Your task to perform on an android device: Go to Google Image 0: 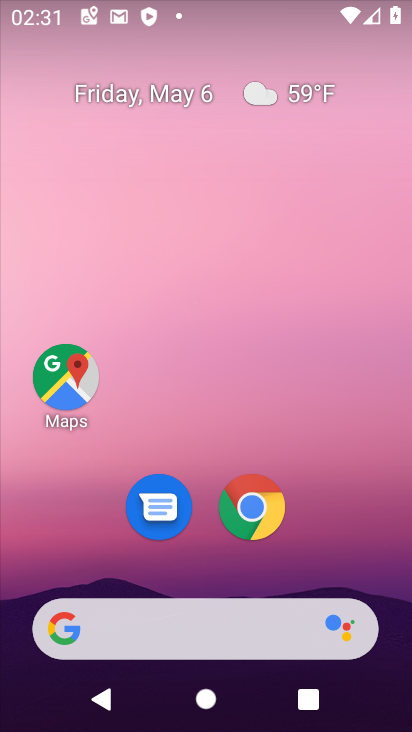
Step 0: drag from (309, 554) to (320, 15)
Your task to perform on an android device: Go to Google Image 1: 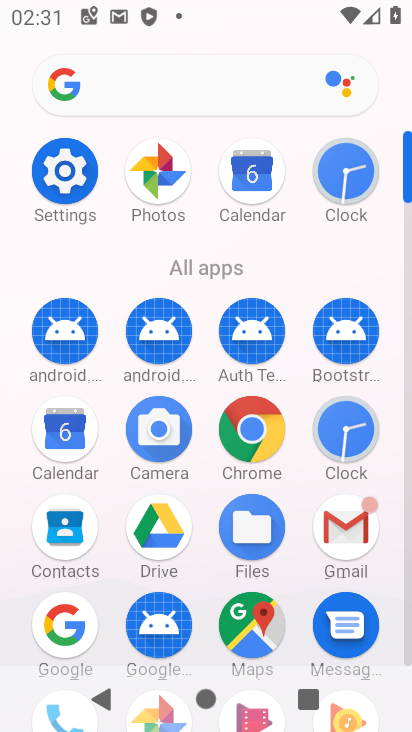
Step 1: click (74, 632)
Your task to perform on an android device: Go to Google Image 2: 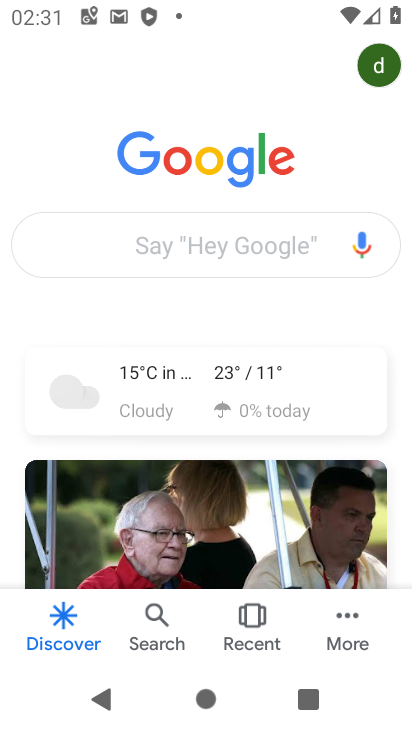
Step 2: task complete